Your task to perform on an android device: Open Chrome and go to settings Image 0: 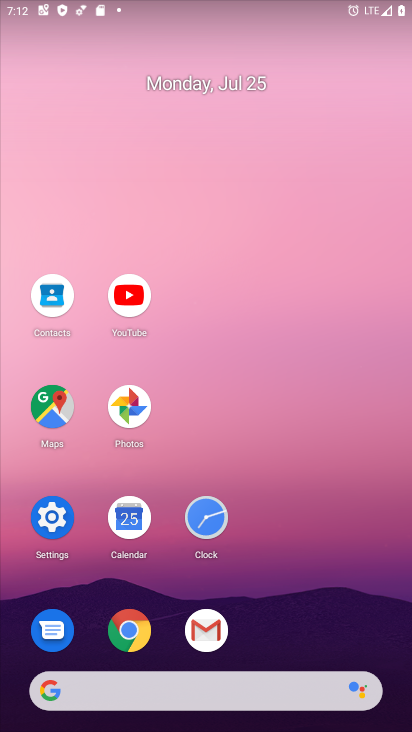
Step 0: click (128, 633)
Your task to perform on an android device: Open Chrome and go to settings Image 1: 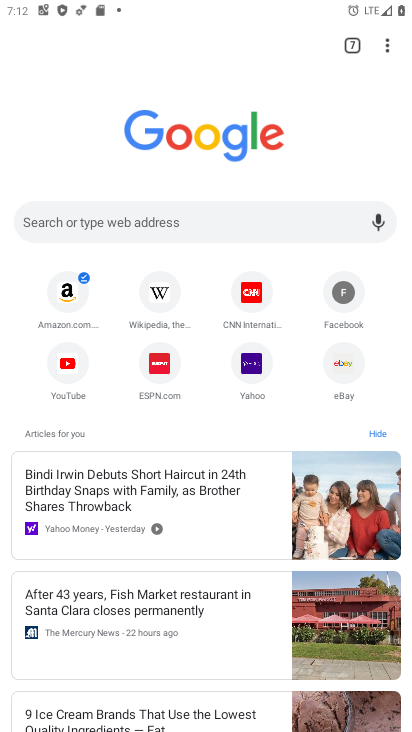
Step 1: click (386, 46)
Your task to perform on an android device: Open Chrome and go to settings Image 2: 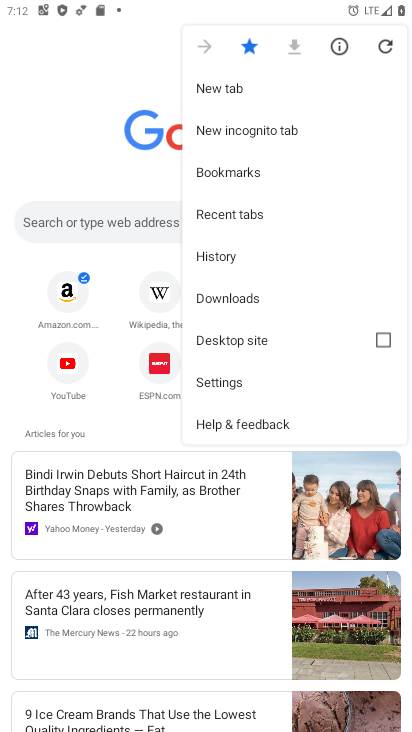
Step 2: click (220, 390)
Your task to perform on an android device: Open Chrome and go to settings Image 3: 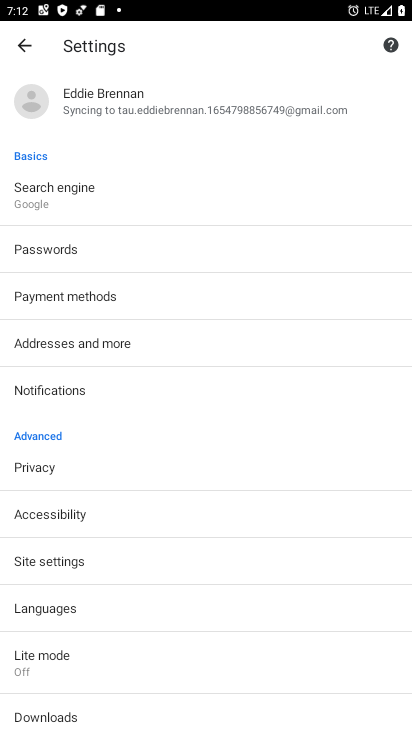
Step 3: task complete